Your task to perform on an android device: Go to Google Image 0: 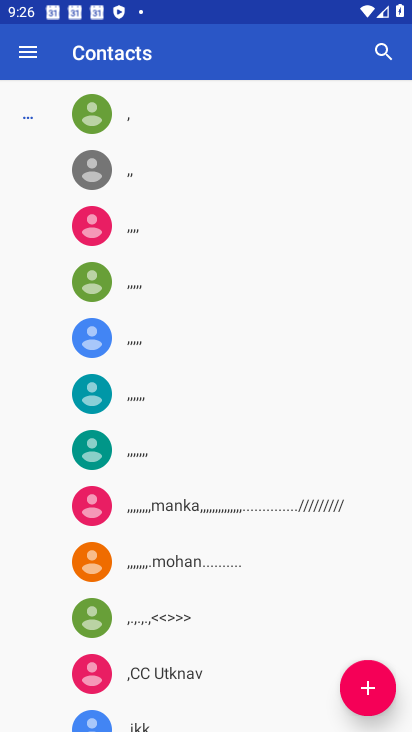
Step 0: press home button
Your task to perform on an android device: Go to Google Image 1: 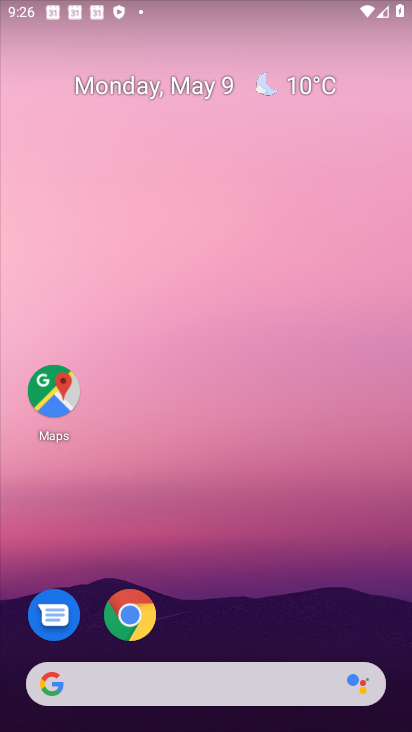
Step 1: drag from (216, 586) to (323, 109)
Your task to perform on an android device: Go to Google Image 2: 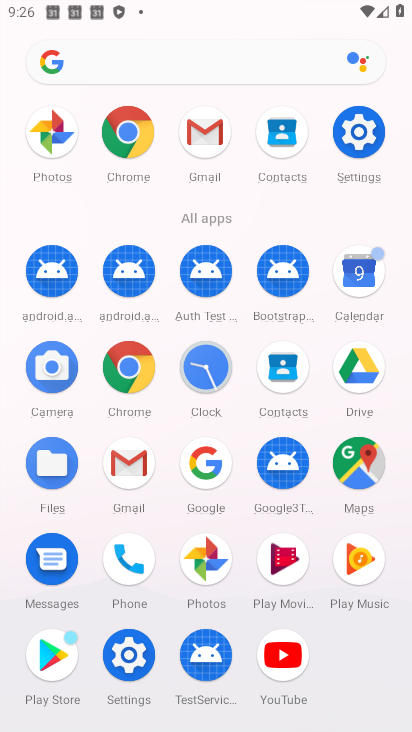
Step 2: click (129, 122)
Your task to perform on an android device: Go to Google Image 3: 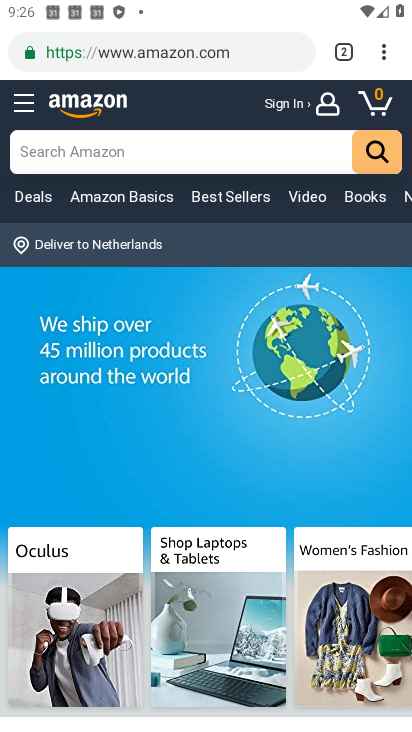
Step 3: click (94, 55)
Your task to perform on an android device: Go to Google Image 4: 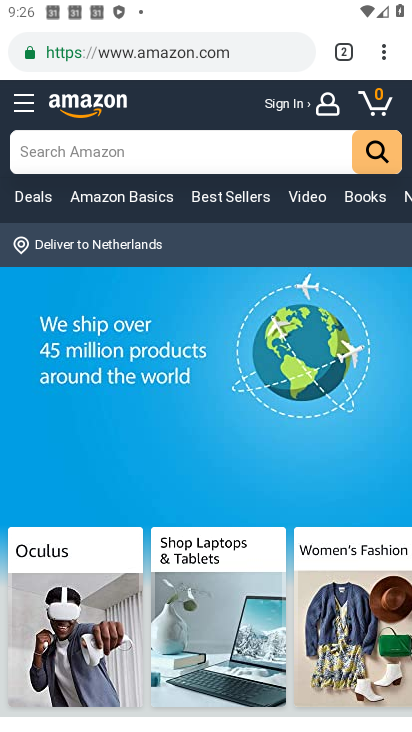
Step 4: click (94, 55)
Your task to perform on an android device: Go to Google Image 5: 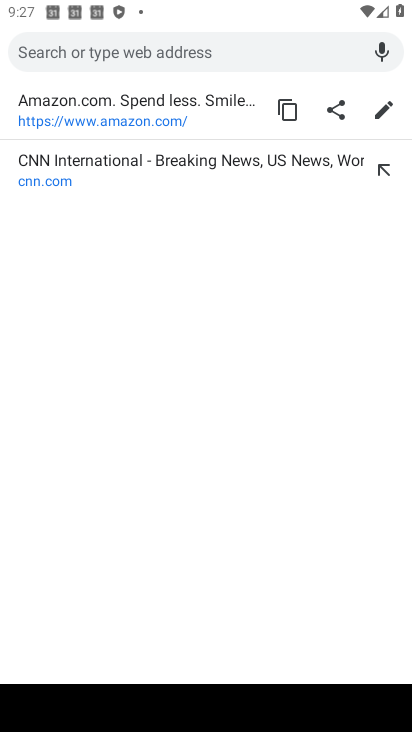
Step 5: type "google"
Your task to perform on an android device: Go to Google Image 6: 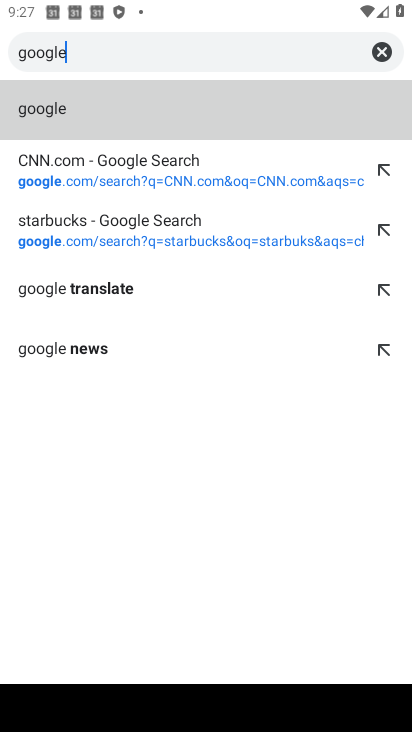
Step 6: click (47, 104)
Your task to perform on an android device: Go to Google Image 7: 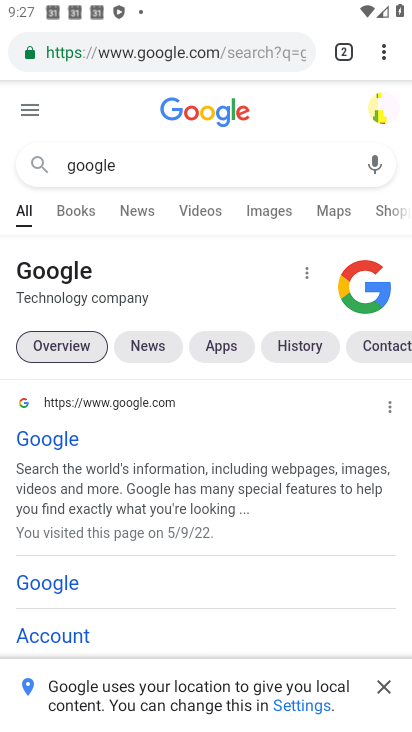
Step 7: click (46, 437)
Your task to perform on an android device: Go to Google Image 8: 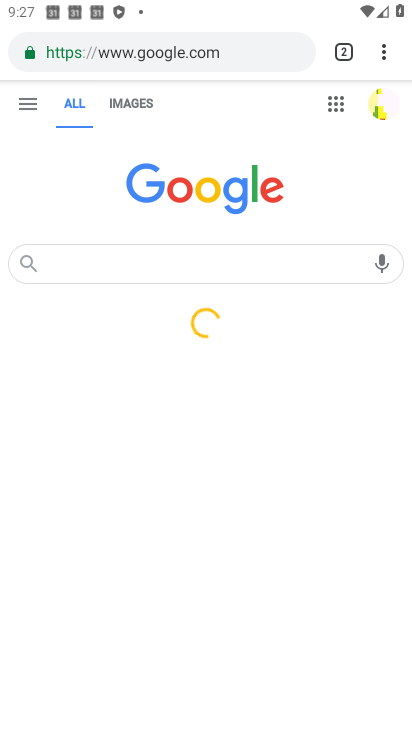
Step 8: task complete